Your task to perform on an android device: install app "Flipkart Online Shopping App" Image 0: 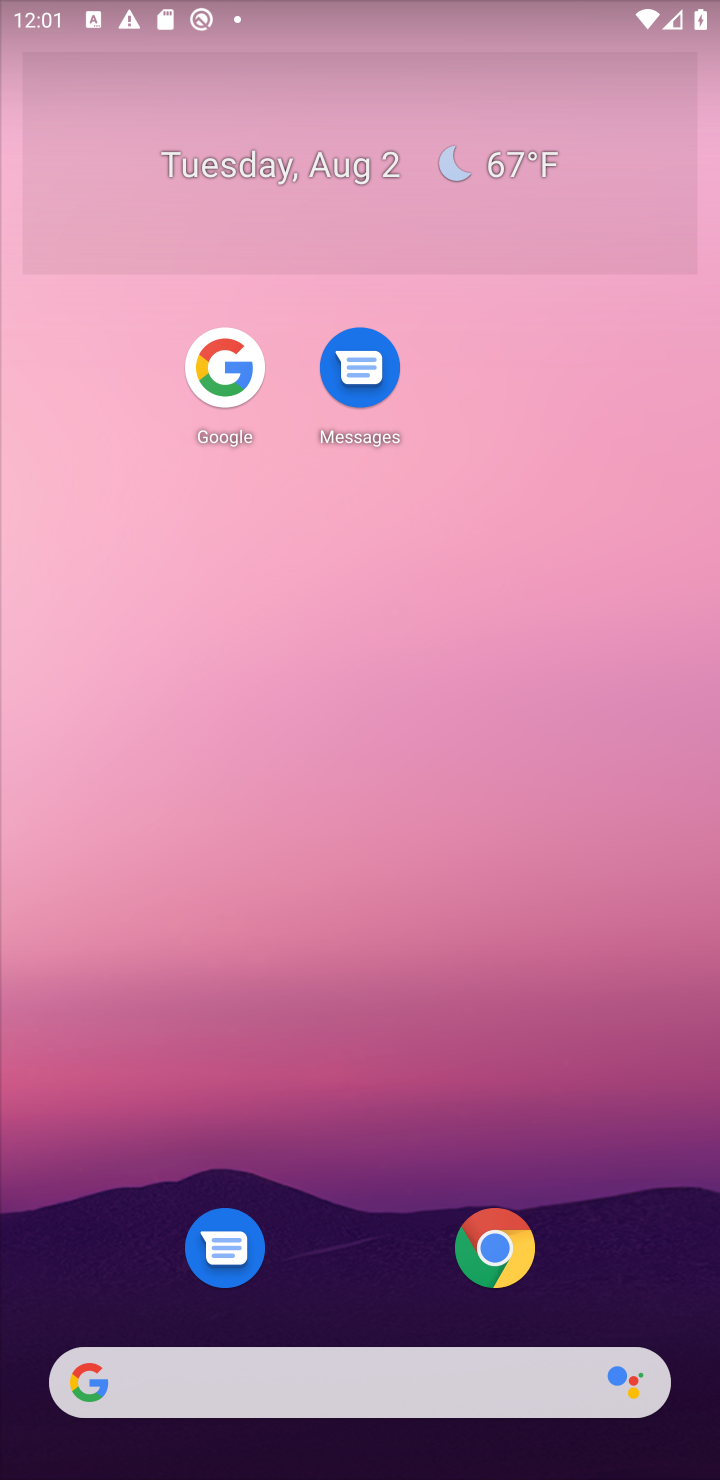
Step 0: drag from (598, 980) to (589, 213)
Your task to perform on an android device: install app "Flipkart Online Shopping App" Image 1: 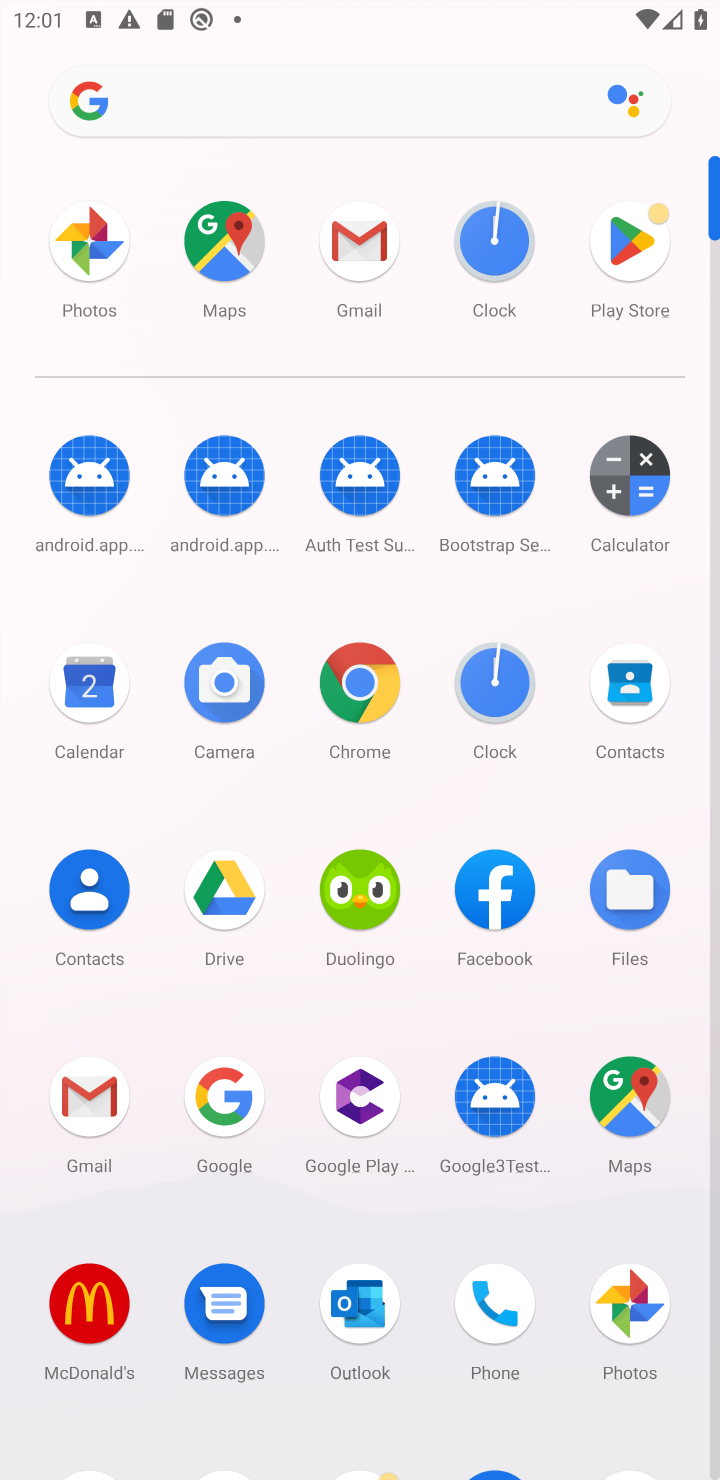
Step 1: drag from (436, 1011) to (469, 338)
Your task to perform on an android device: install app "Flipkart Online Shopping App" Image 2: 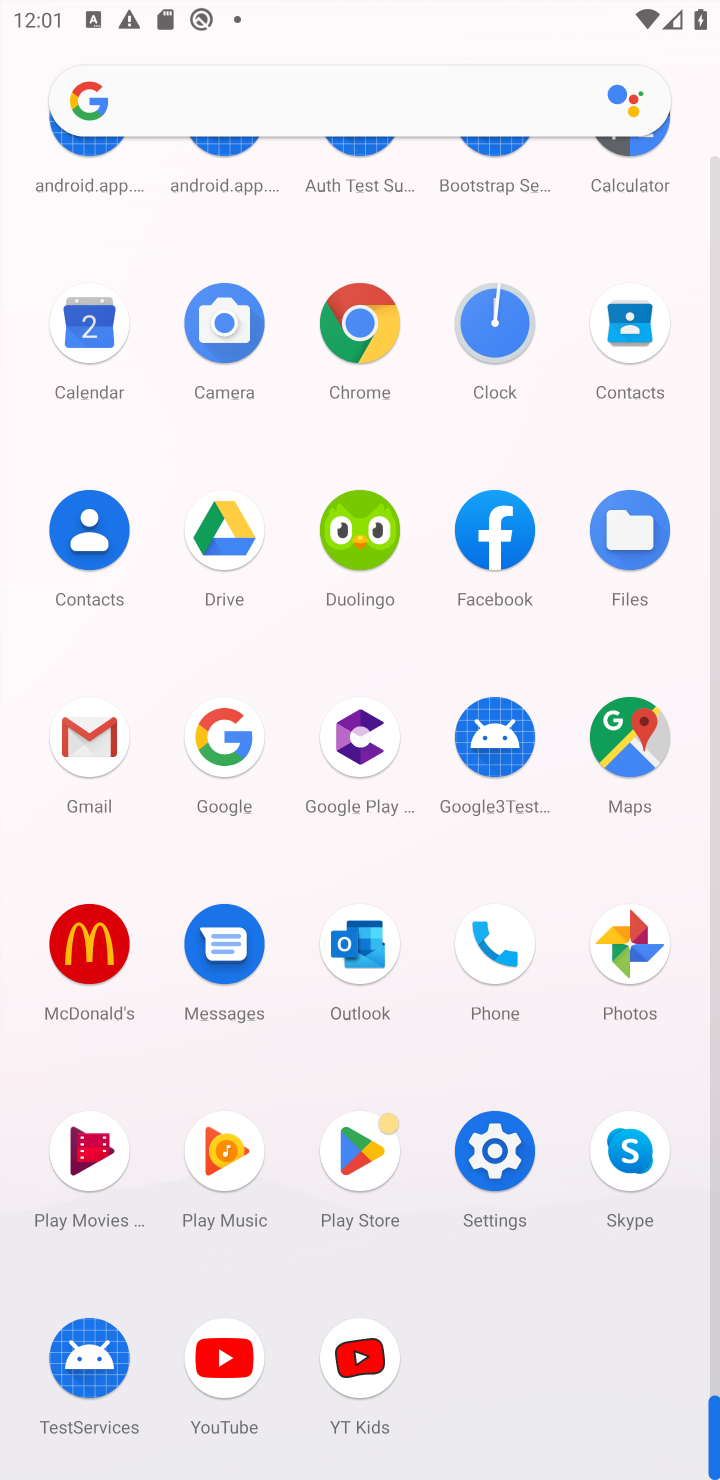
Step 2: click (374, 1152)
Your task to perform on an android device: install app "Flipkart Online Shopping App" Image 3: 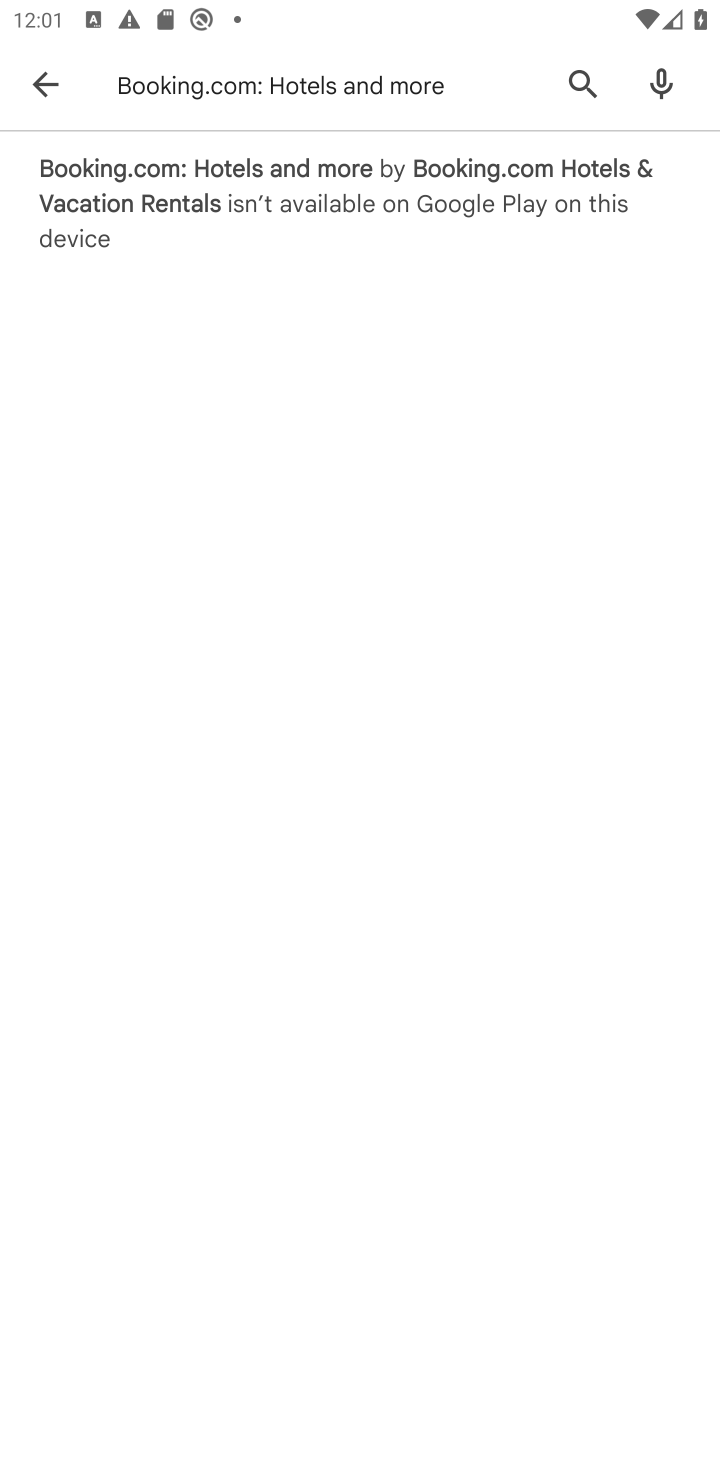
Step 3: click (427, 96)
Your task to perform on an android device: install app "Flipkart Online Shopping App" Image 4: 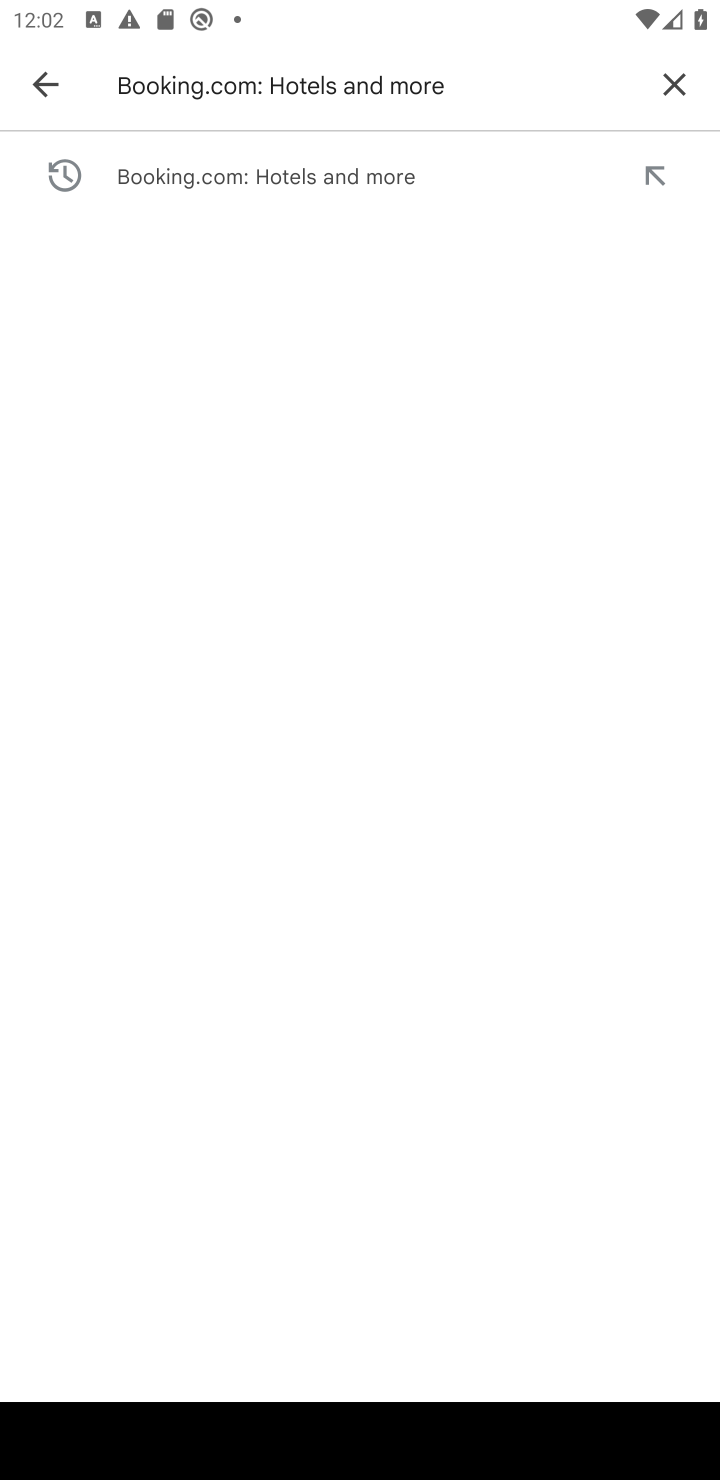
Step 4: click (685, 71)
Your task to perform on an android device: install app "Flipkart Online Shopping App" Image 5: 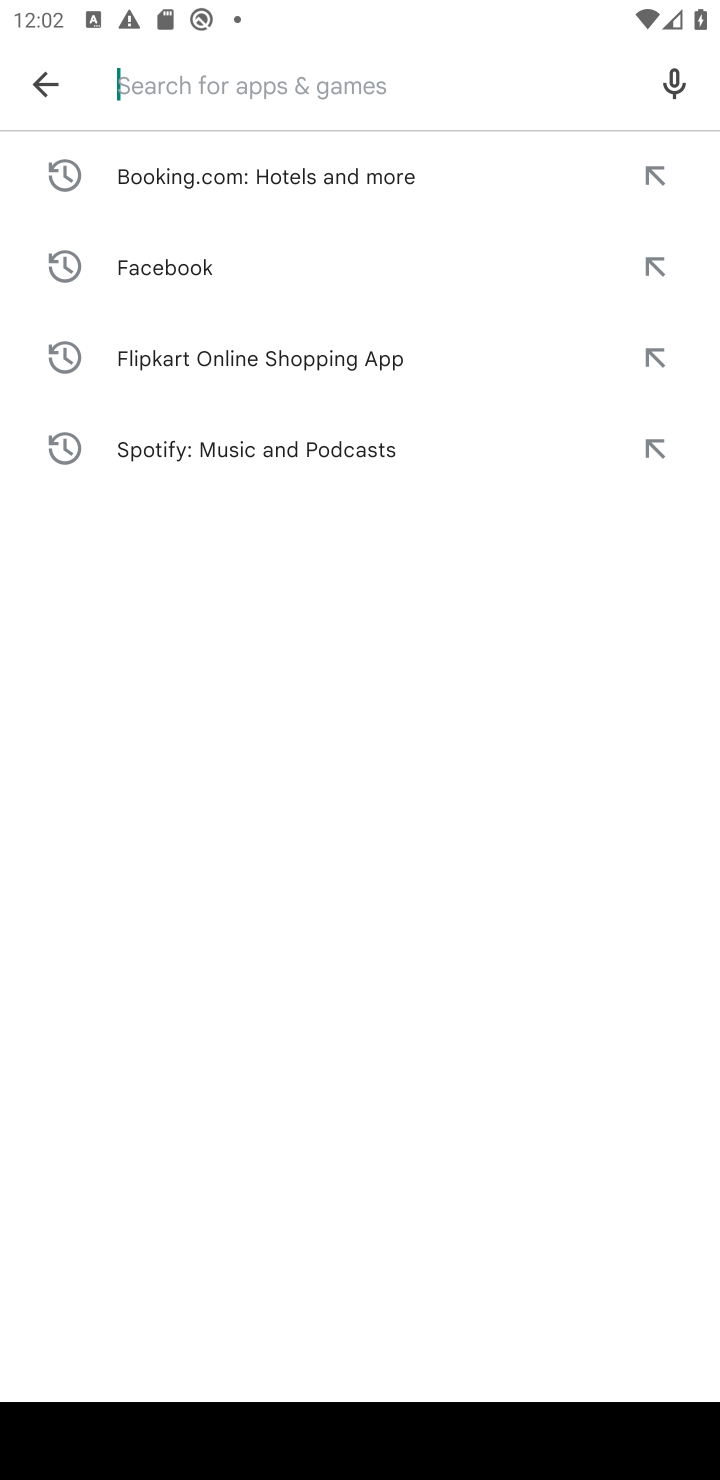
Step 5: type "Flipkart o"
Your task to perform on an android device: install app "Flipkart Online Shopping App" Image 6: 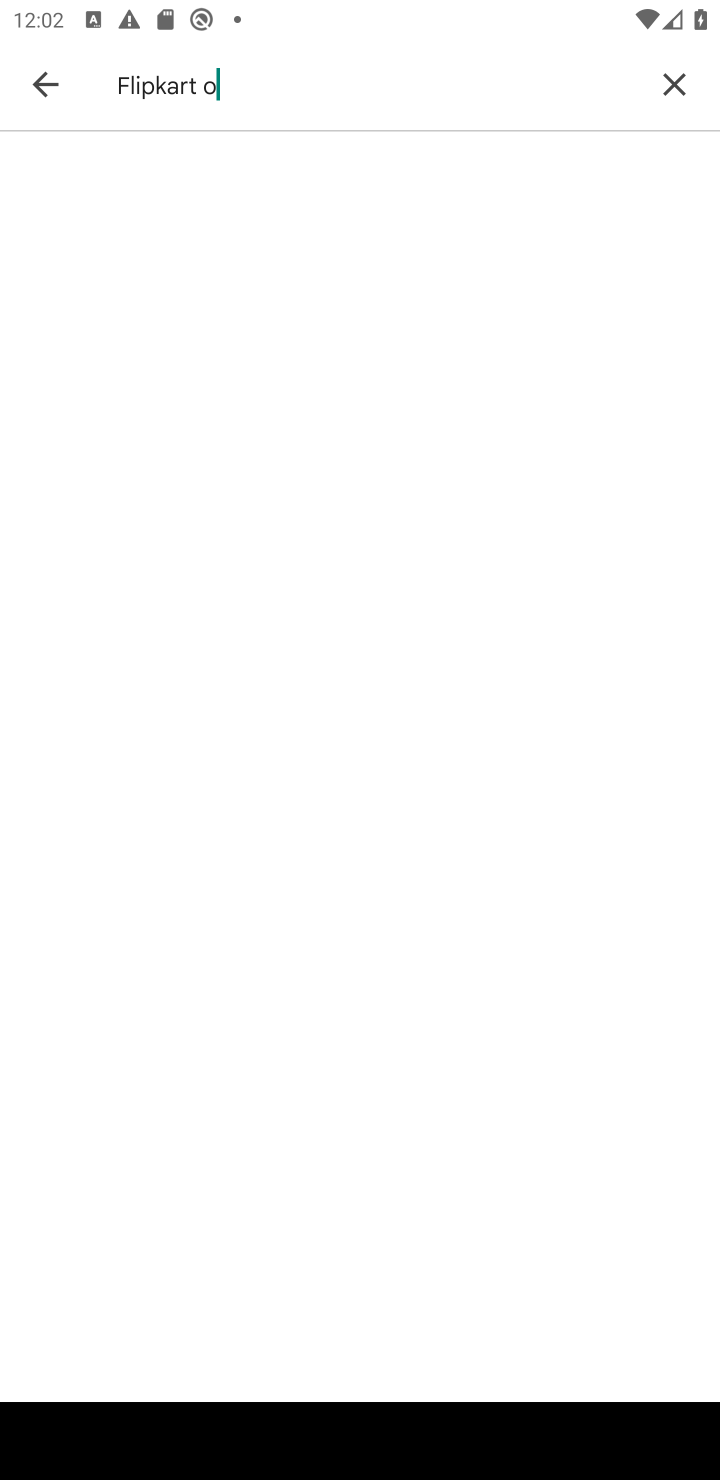
Step 6: type "nline Shopping app"
Your task to perform on an android device: install app "Flipkart Online Shopping App" Image 7: 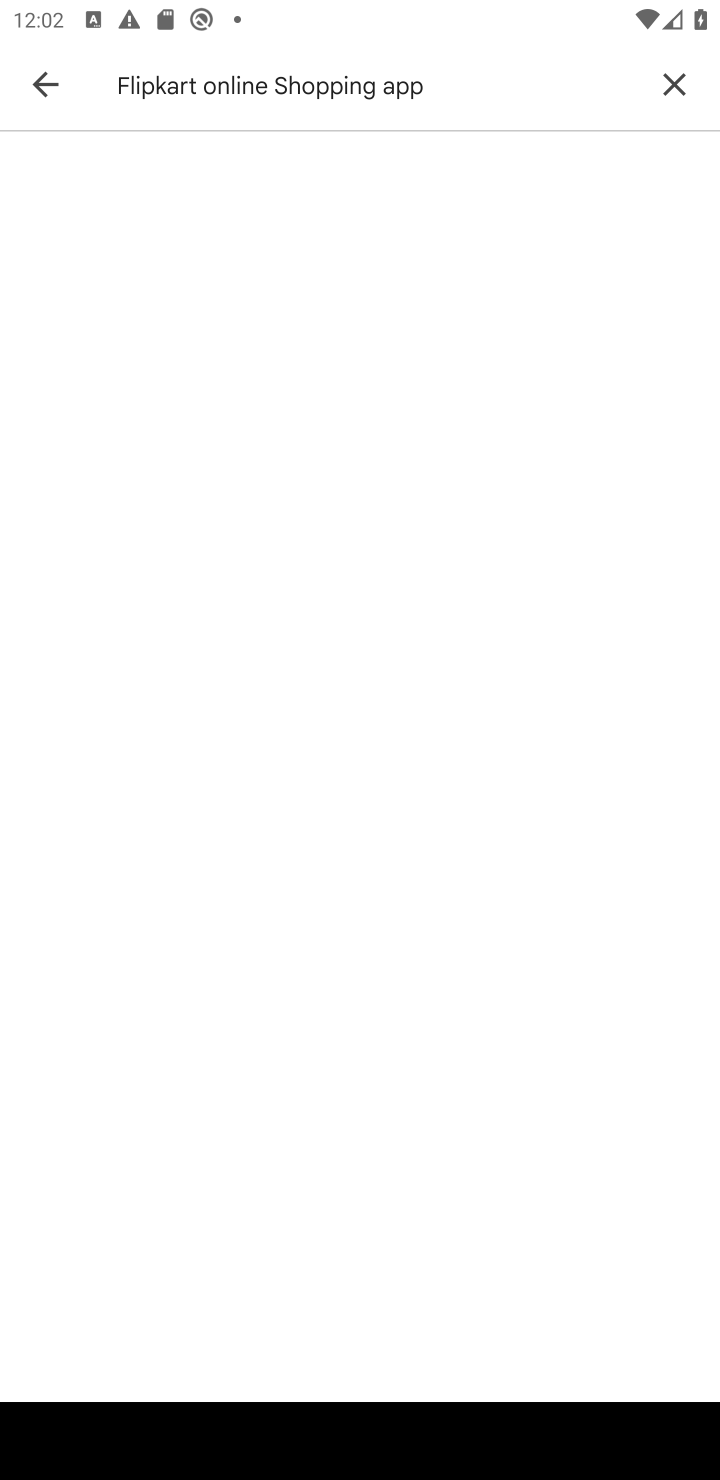
Step 7: press enter
Your task to perform on an android device: install app "Flipkart Online Shopping App" Image 8: 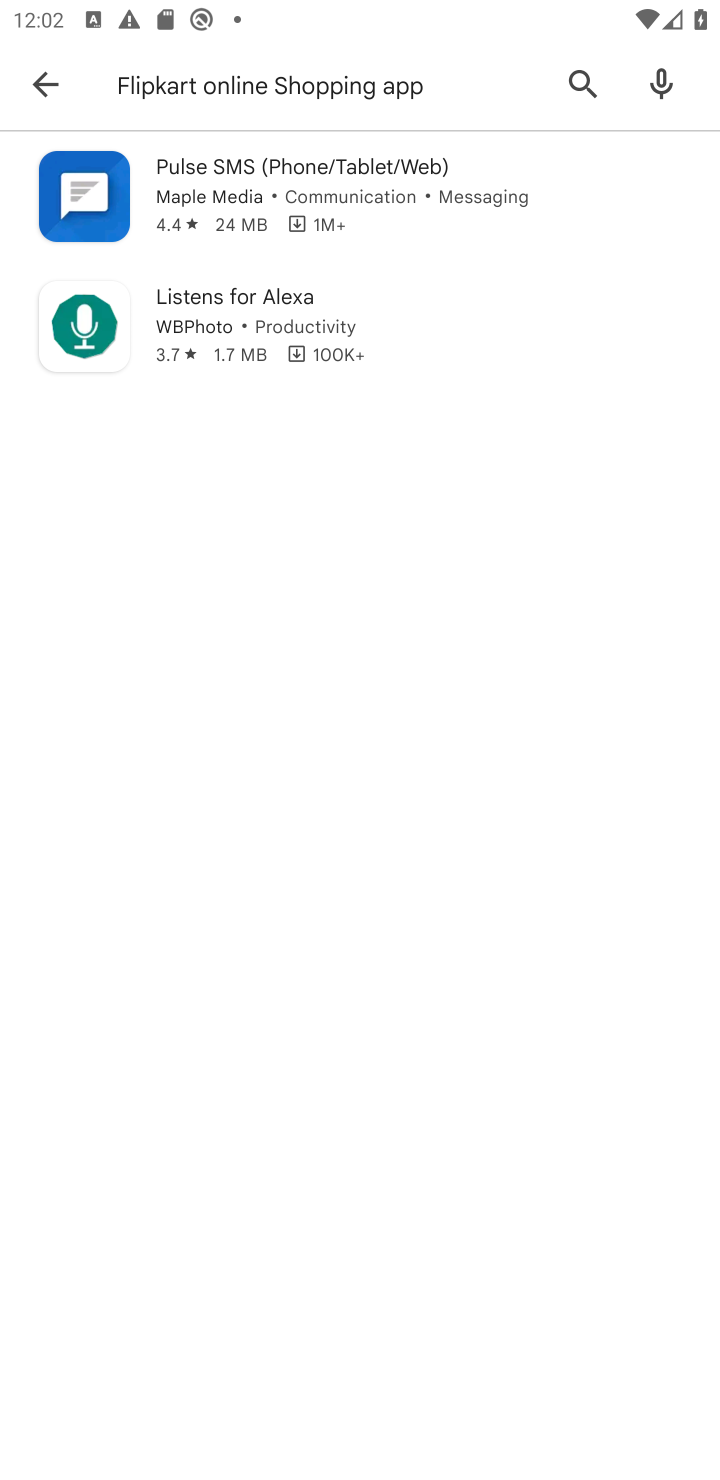
Step 8: task complete